Your task to perform on an android device: toggle notification dots Image 0: 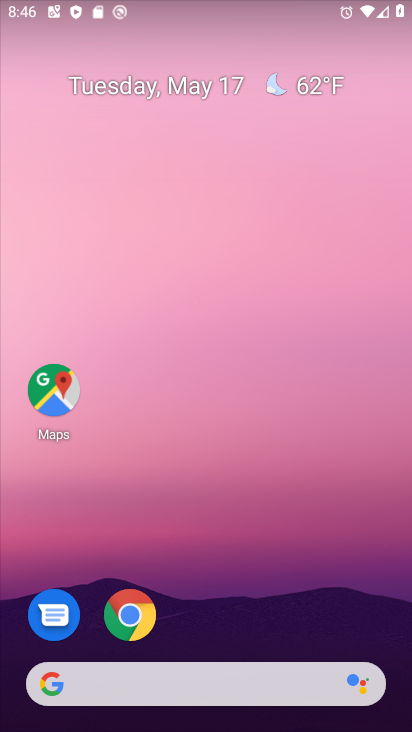
Step 0: drag from (259, 641) to (282, 176)
Your task to perform on an android device: toggle notification dots Image 1: 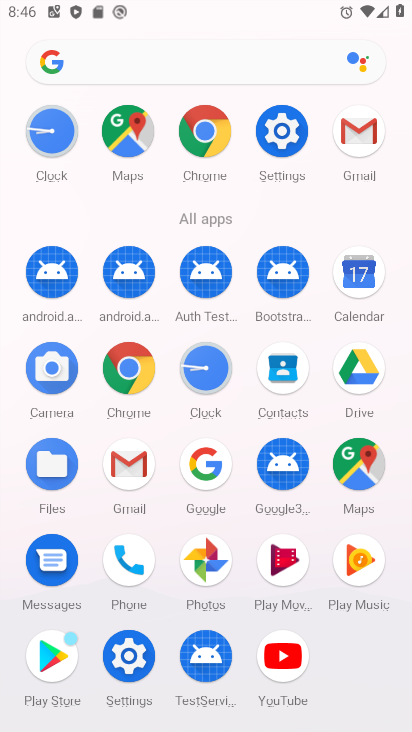
Step 1: click (267, 132)
Your task to perform on an android device: toggle notification dots Image 2: 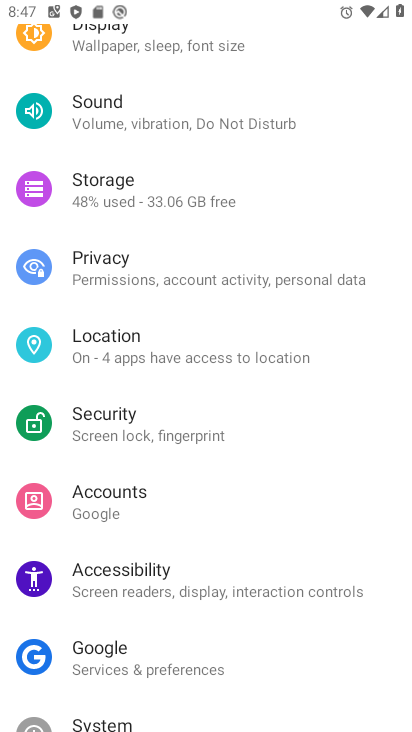
Step 2: click (223, 636)
Your task to perform on an android device: toggle notification dots Image 3: 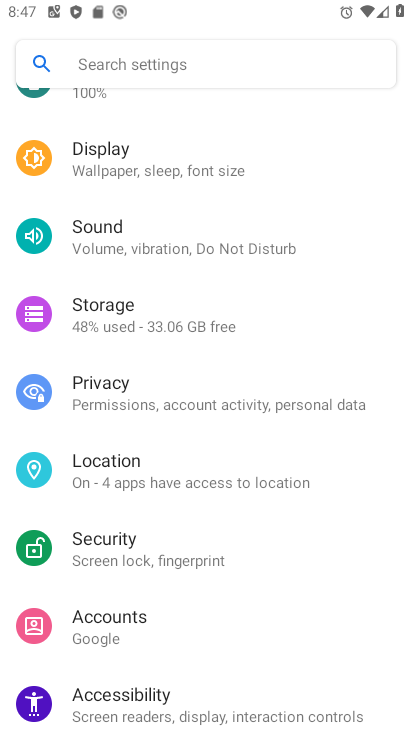
Step 3: drag from (184, 301) to (182, 724)
Your task to perform on an android device: toggle notification dots Image 4: 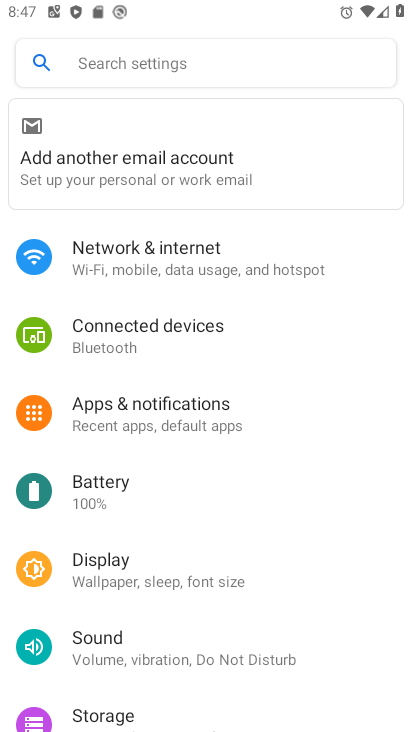
Step 4: click (161, 408)
Your task to perform on an android device: toggle notification dots Image 5: 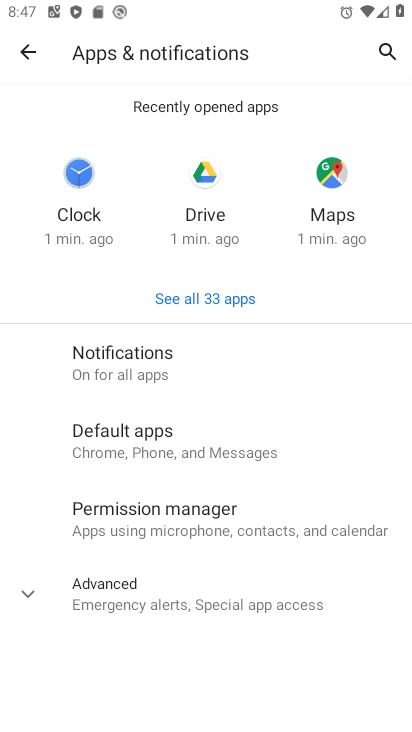
Step 5: click (158, 359)
Your task to perform on an android device: toggle notification dots Image 6: 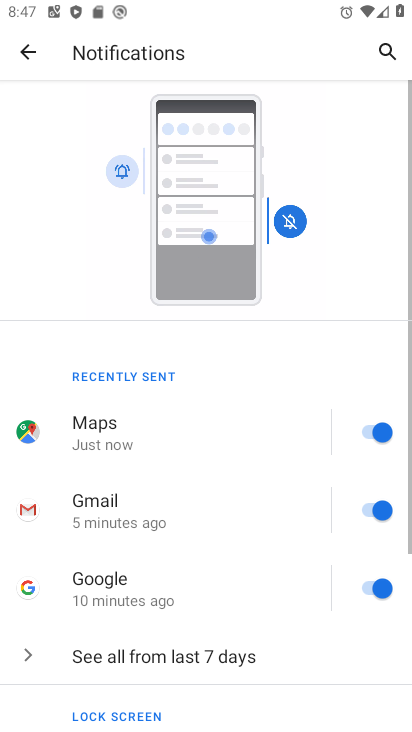
Step 6: drag from (176, 684) to (211, 182)
Your task to perform on an android device: toggle notification dots Image 7: 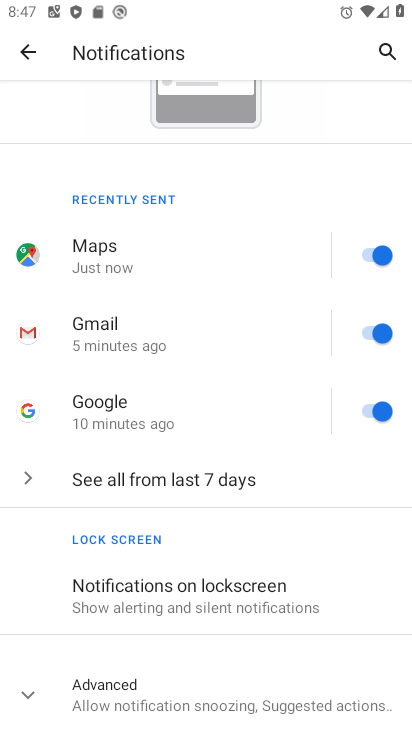
Step 7: click (159, 689)
Your task to perform on an android device: toggle notification dots Image 8: 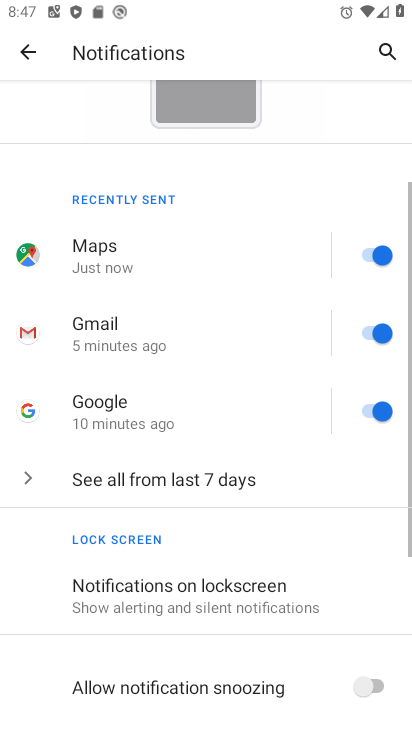
Step 8: drag from (182, 664) to (178, 205)
Your task to perform on an android device: toggle notification dots Image 9: 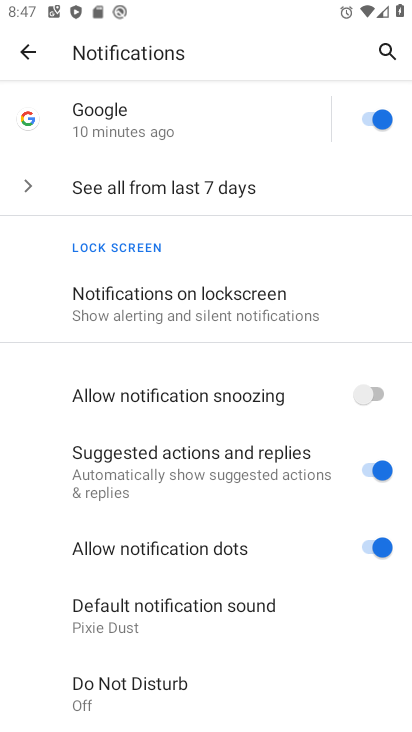
Step 9: click (390, 548)
Your task to perform on an android device: toggle notification dots Image 10: 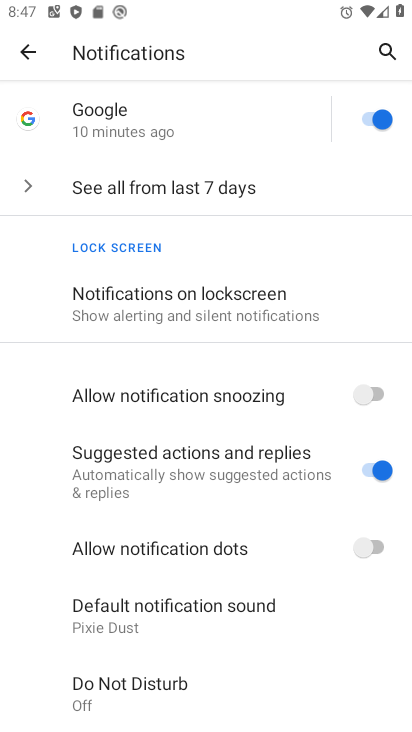
Step 10: task complete